Your task to perform on an android device: Open Google Maps Image 0: 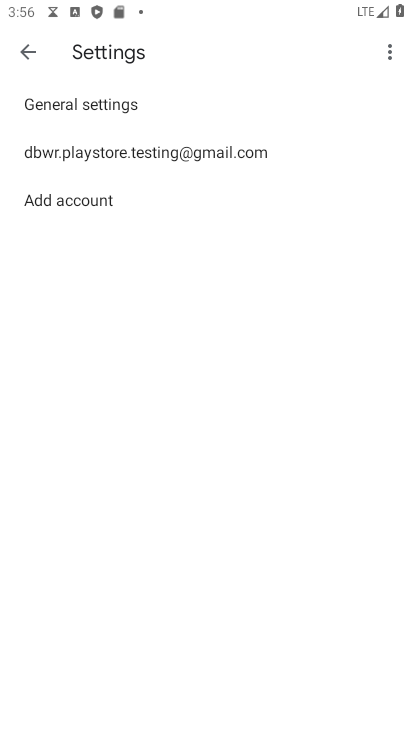
Step 0: press home button
Your task to perform on an android device: Open Google Maps Image 1: 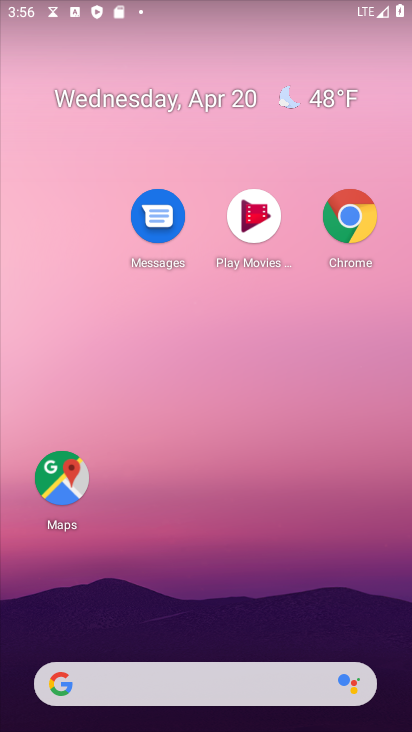
Step 1: click (70, 494)
Your task to perform on an android device: Open Google Maps Image 2: 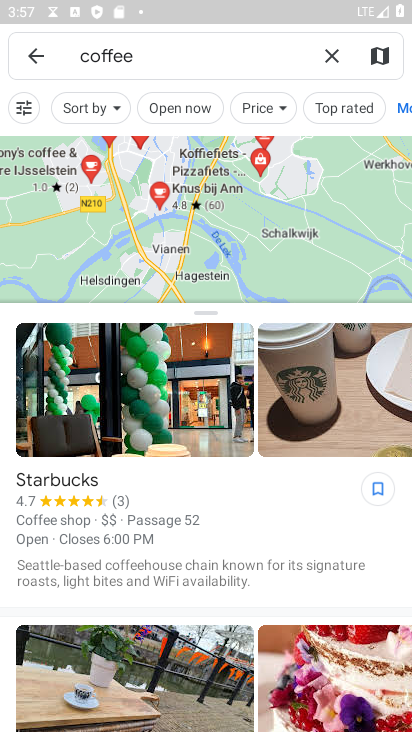
Step 2: task complete